Your task to perform on an android device: refresh tabs in the chrome app Image 0: 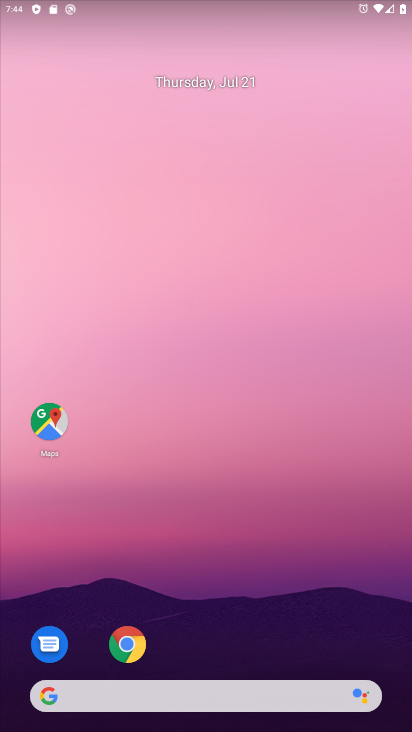
Step 0: drag from (350, 606) to (361, 165)
Your task to perform on an android device: refresh tabs in the chrome app Image 1: 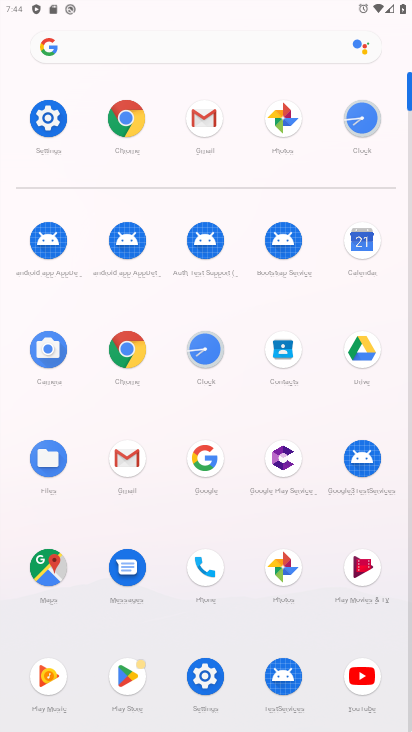
Step 1: click (132, 355)
Your task to perform on an android device: refresh tabs in the chrome app Image 2: 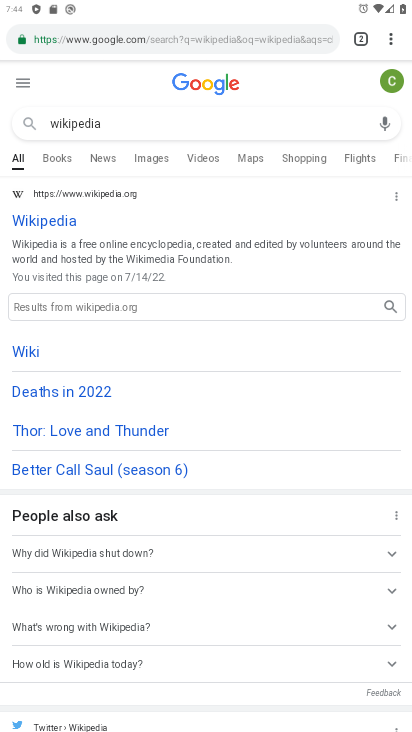
Step 2: click (392, 43)
Your task to perform on an android device: refresh tabs in the chrome app Image 3: 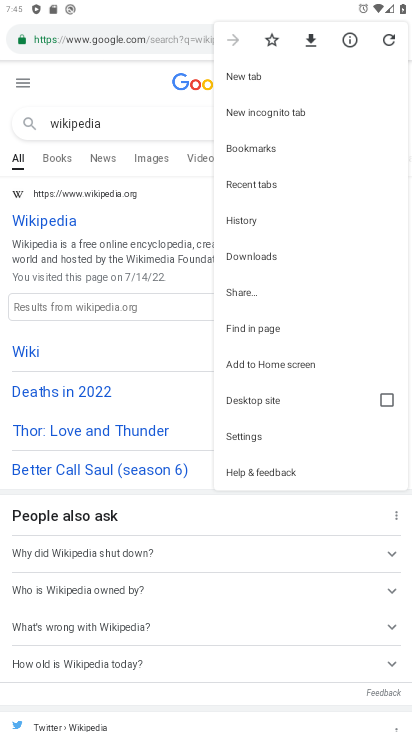
Step 3: click (392, 43)
Your task to perform on an android device: refresh tabs in the chrome app Image 4: 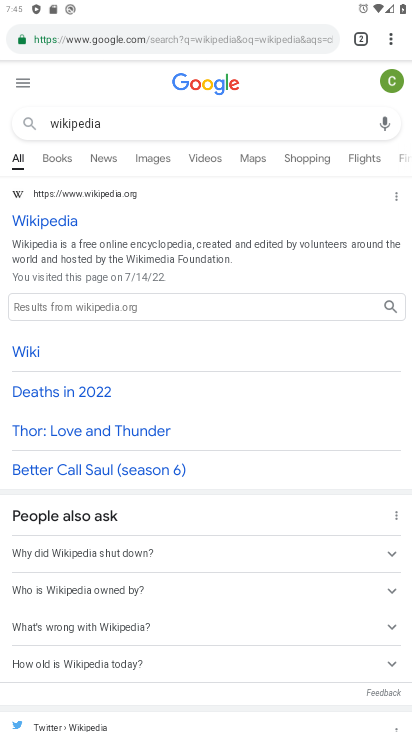
Step 4: task complete